Your task to perform on an android device: Find coffee shops on Maps Image 0: 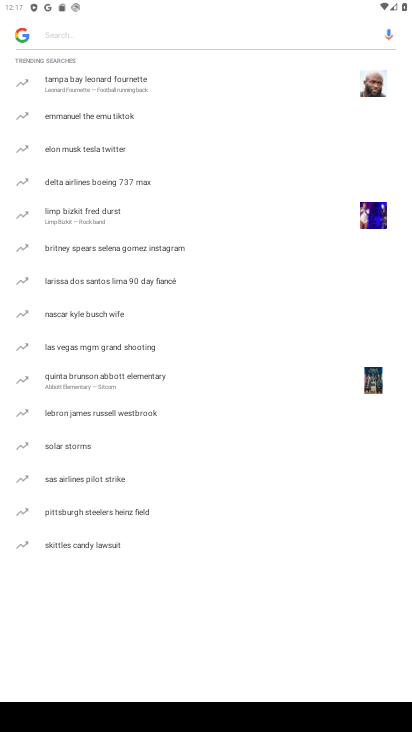
Step 0: press home button
Your task to perform on an android device: Find coffee shops on Maps Image 1: 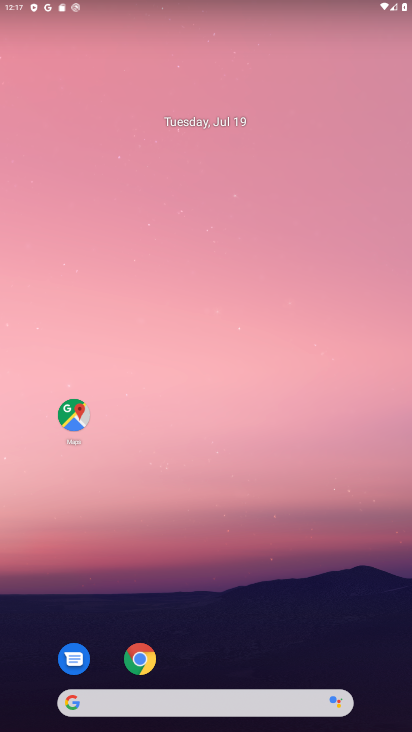
Step 1: click (72, 416)
Your task to perform on an android device: Find coffee shops on Maps Image 2: 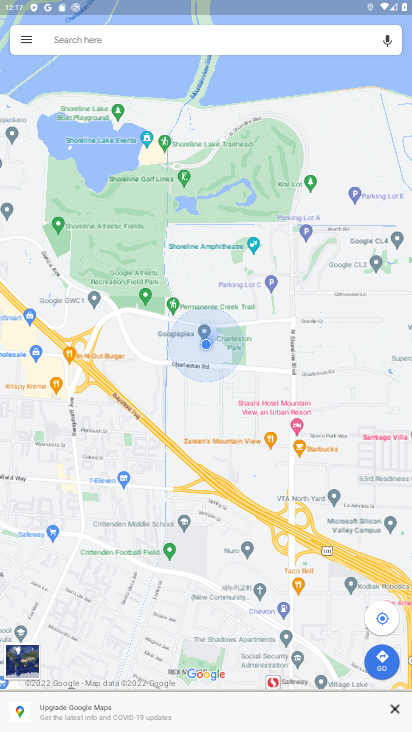
Step 2: click (125, 37)
Your task to perform on an android device: Find coffee shops on Maps Image 3: 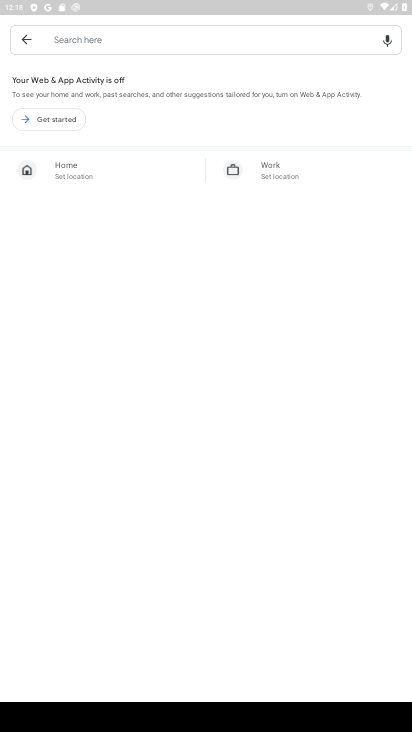
Step 3: type "coffee shops"
Your task to perform on an android device: Find coffee shops on Maps Image 4: 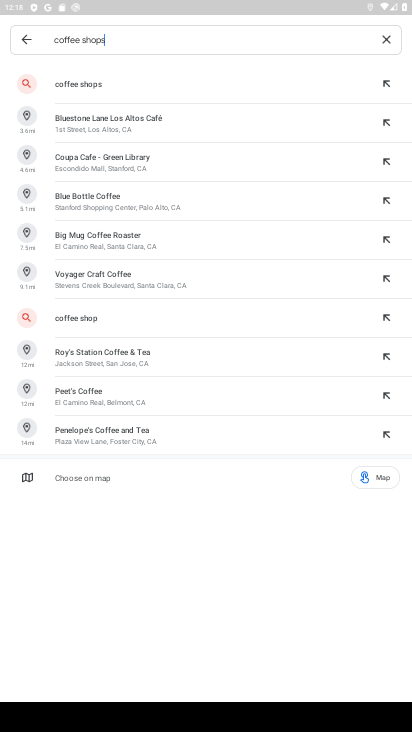
Step 4: click (76, 80)
Your task to perform on an android device: Find coffee shops on Maps Image 5: 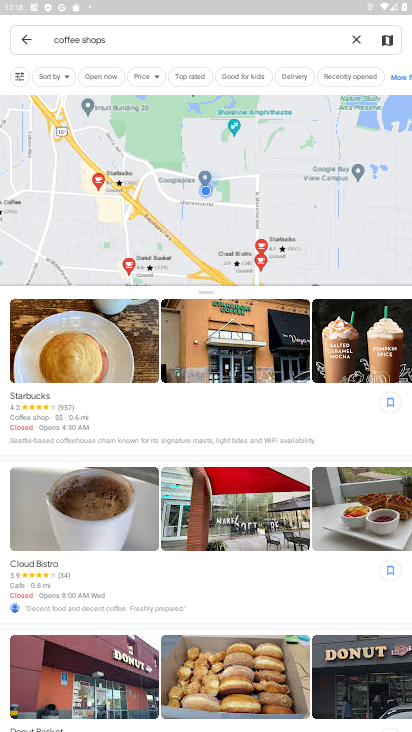
Step 5: task complete